Your task to perform on an android device: turn smart compose on in the gmail app Image 0: 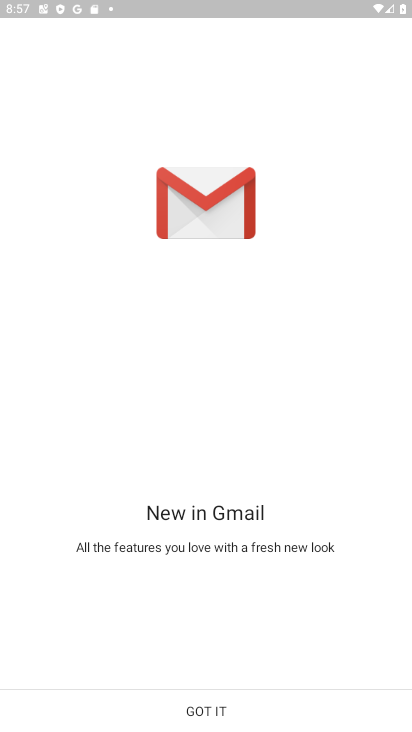
Step 0: press back button
Your task to perform on an android device: turn smart compose on in the gmail app Image 1: 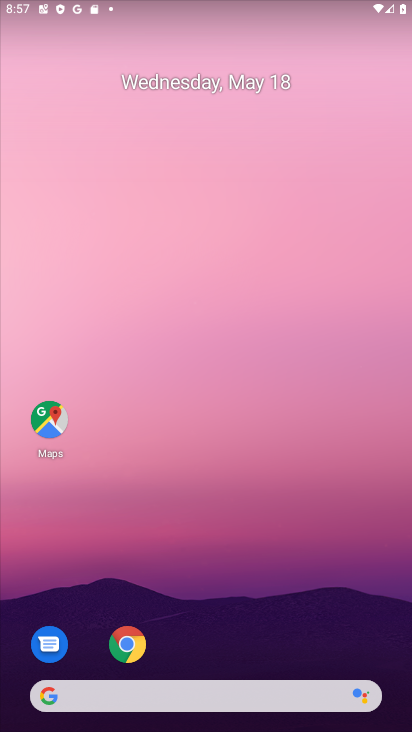
Step 1: drag from (237, 633) to (211, 2)
Your task to perform on an android device: turn smart compose on in the gmail app Image 2: 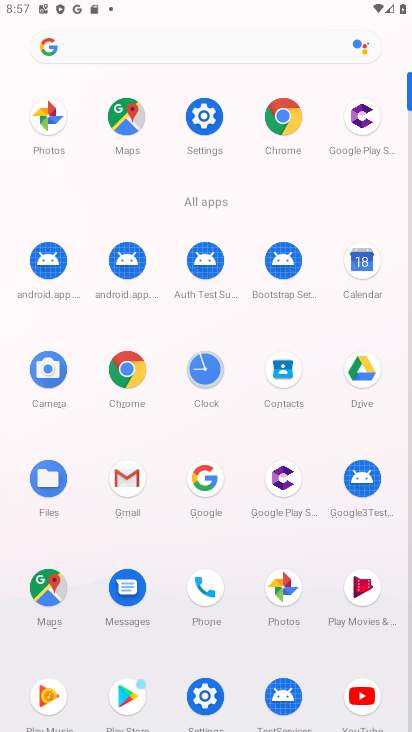
Step 2: click (126, 477)
Your task to perform on an android device: turn smart compose on in the gmail app Image 3: 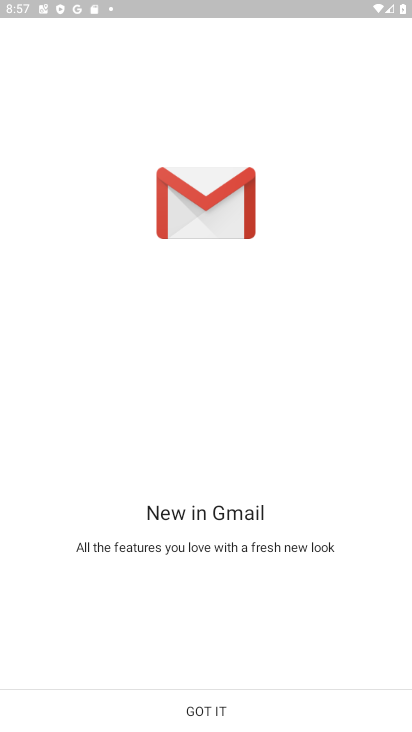
Step 3: click (203, 709)
Your task to perform on an android device: turn smart compose on in the gmail app Image 4: 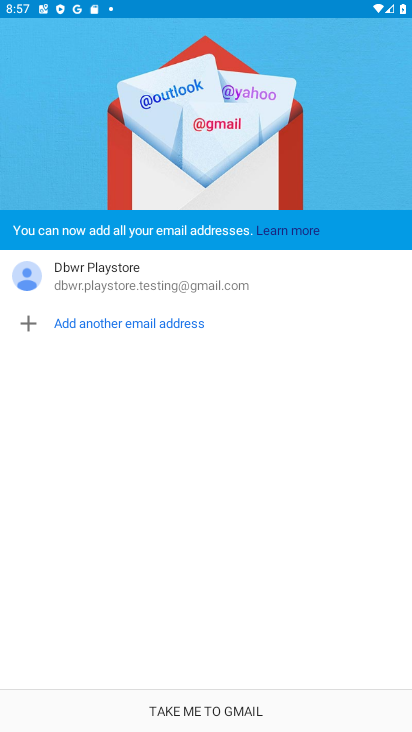
Step 4: click (203, 709)
Your task to perform on an android device: turn smart compose on in the gmail app Image 5: 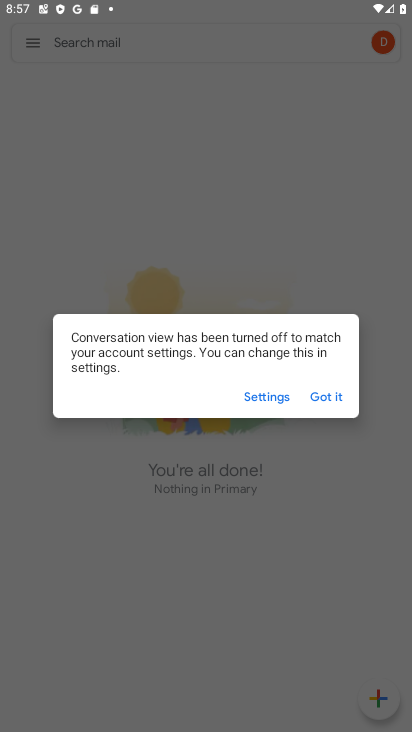
Step 5: click (324, 404)
Your task to perform on an android device: turn smart compose on in the gmail app Image 6: 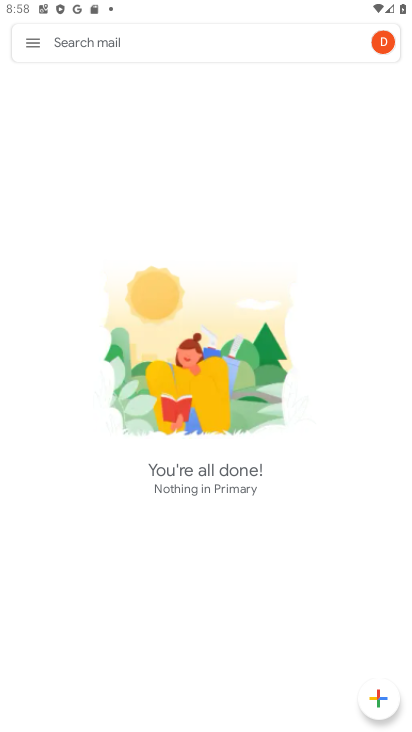
Step 6: click (29, 43)
Your task to perform on an android device: turn smart compose on in the gmail app Image 7: 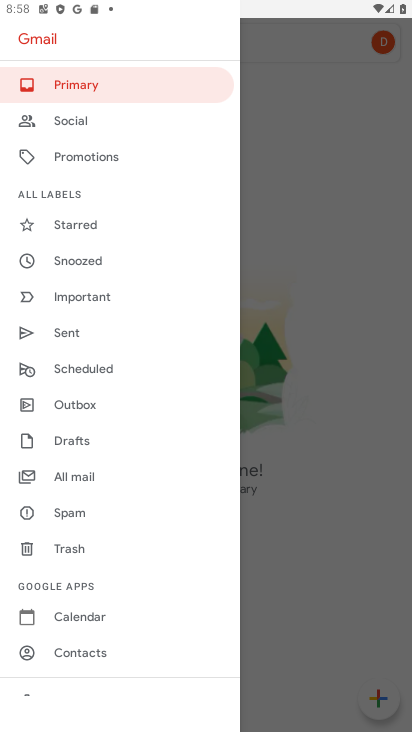
Step 7: drag from (106, 592) to (129, 511)
Your task to perform on an android device: turn smart compose on in the gmail app Image 8: 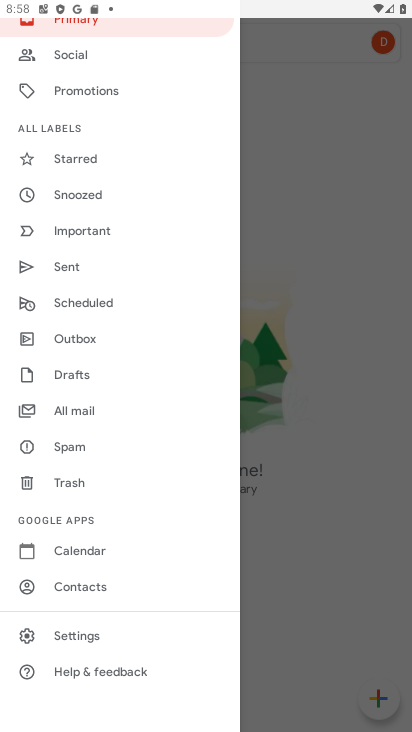
Step 8: click (80, 634)
Your task to perform on an android device: turn smart compose on in the gmail app Image 9: 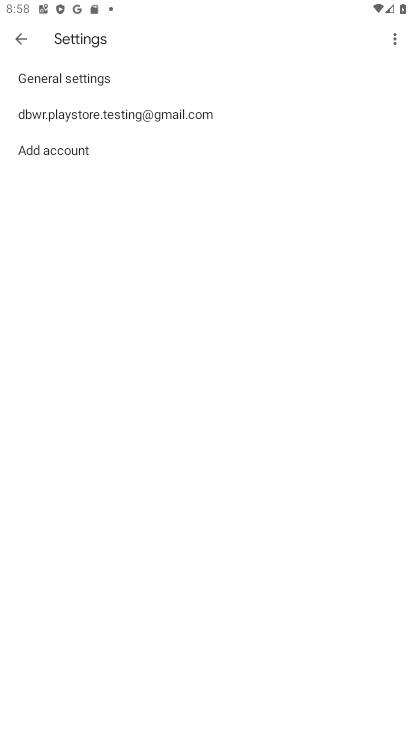
Step 9: click (98, 114)
Your task to perform on an android device: turn smart compose on in the gmail app Image 10: 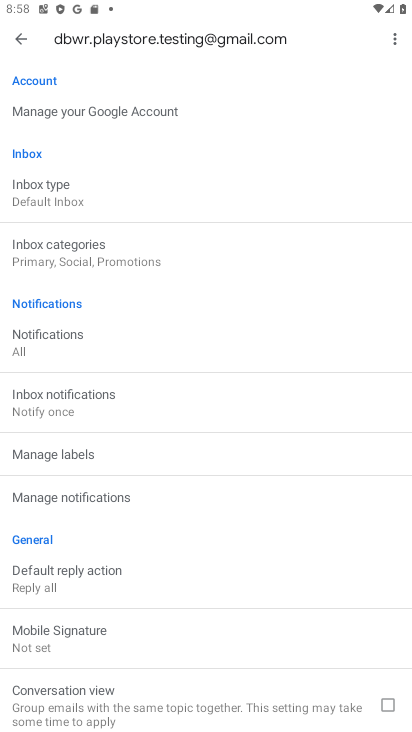
Step 10: task complete